Your task to perform on an android device: turn on airplane mode Image 0: 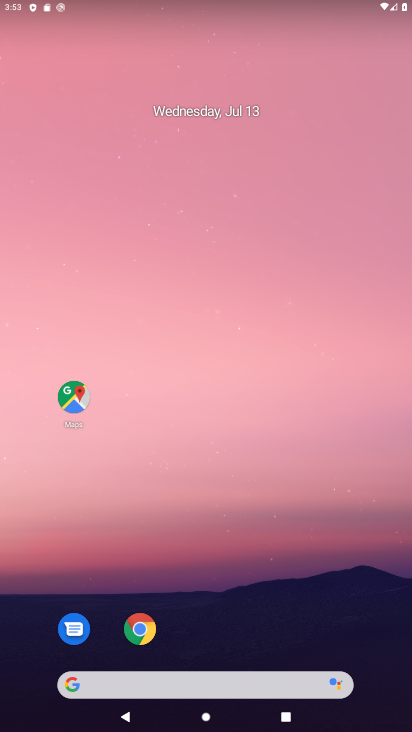
Step 0: drag from (210, 655) to (301, 84)
Your task to perform on an android device: turn on airplane mode Image 1: 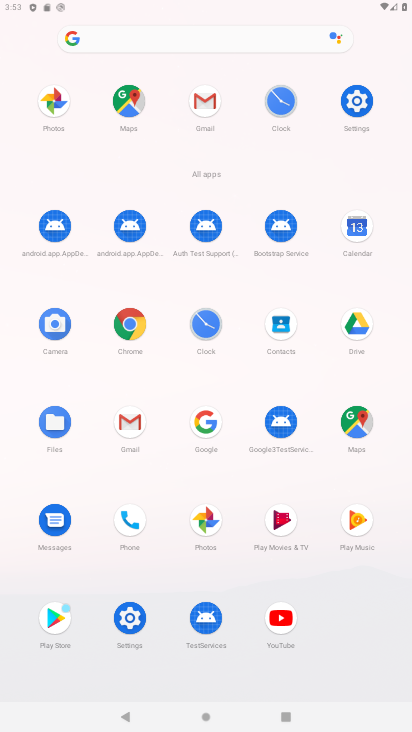
Step 1: click (138, 621)
Your task to perform on an android device: turn on airplane mode Image 2: 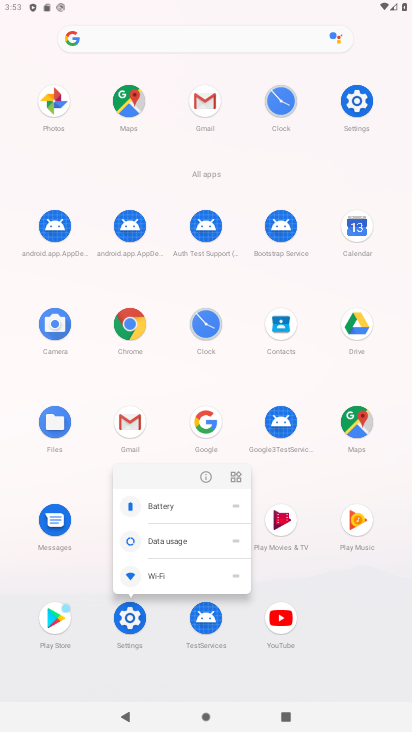
Step 2: click (138, 620)
Your task to perform on an android device: turn on airplane mode Image 3: 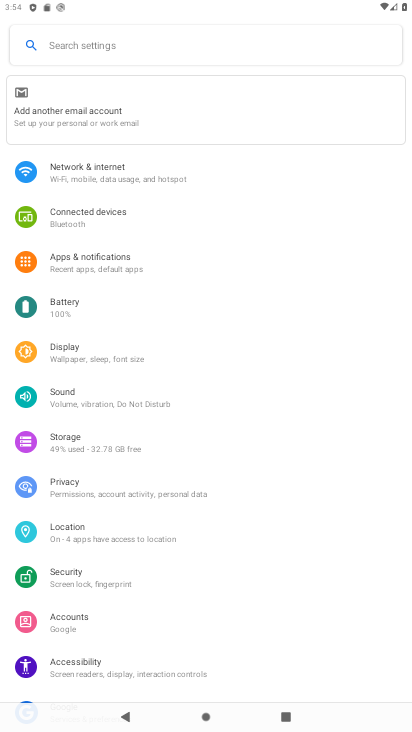
Step 3: click (148, 179)
Your task to perform on an android device: turn on airplane mode Image 4: 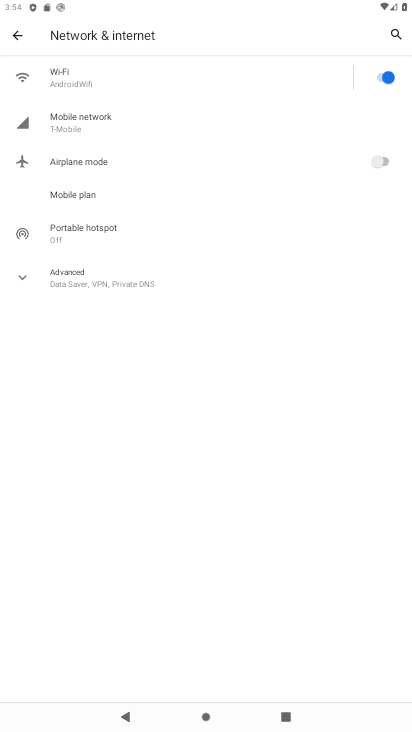
Step 4: click (392, 156)
Your task to perform on an android device: turn on airplane mode Image 5: 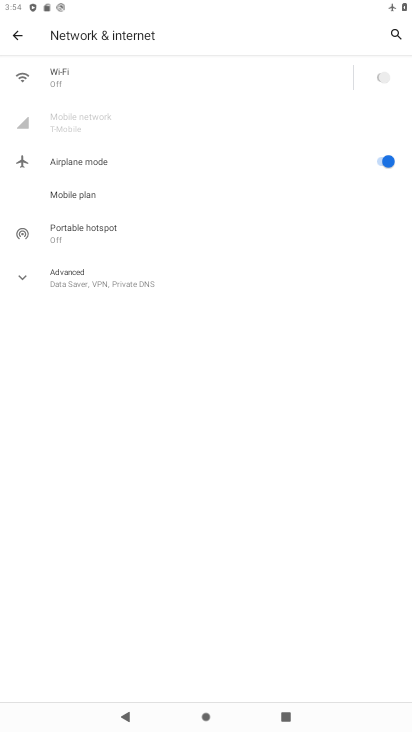
Step 5: task complete